Your task to perform on an android device: open sync settings in chrome Image 0: 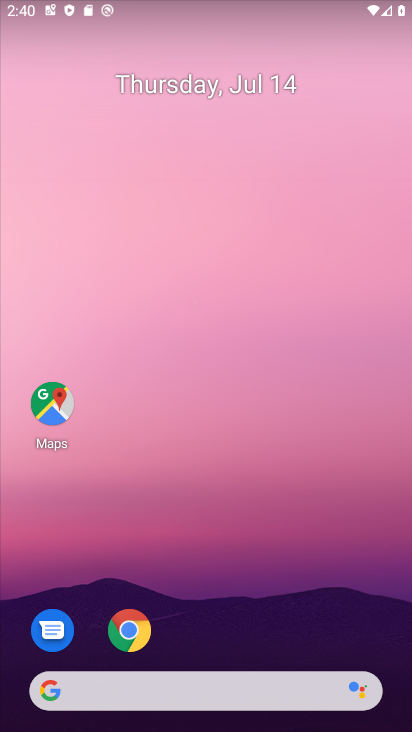
Step 0: press home button
Your task to perform on an android device: open sync settings in chrome Image 1: 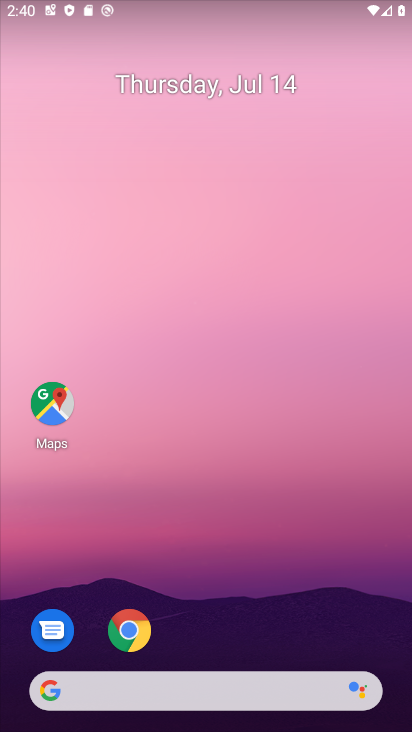
Step 1: click (128, 629)
Your task to perform on an android device: open sync settings in chrome Image 2: 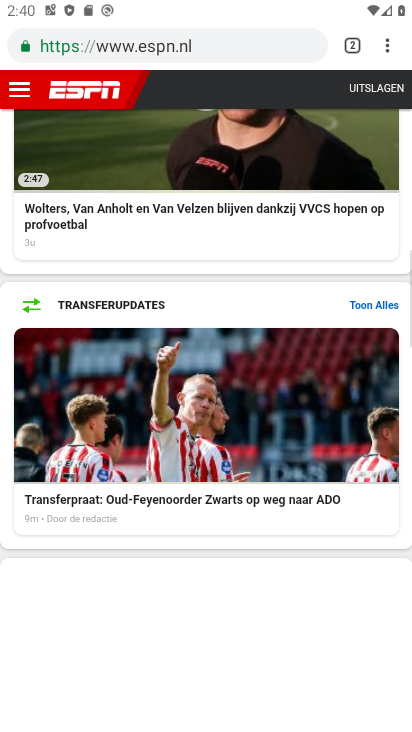
Step 2: click (382, 44)
Your task to perform on an android device: open sync settings in chrome Image 3: 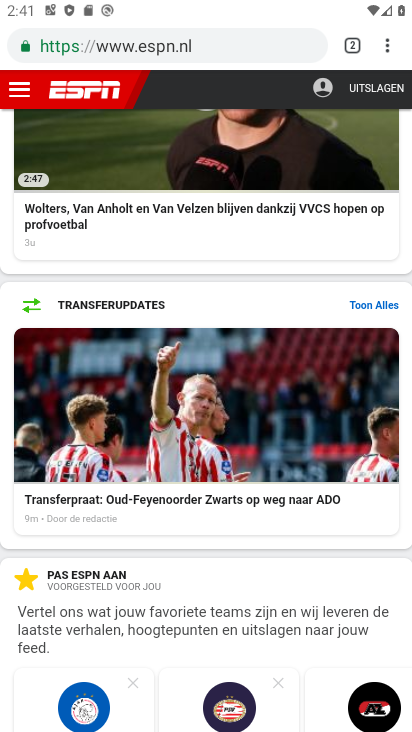
Step 3: click (389, 46)
Your task to perform on an android device: open sync settings in chrome Image 4: 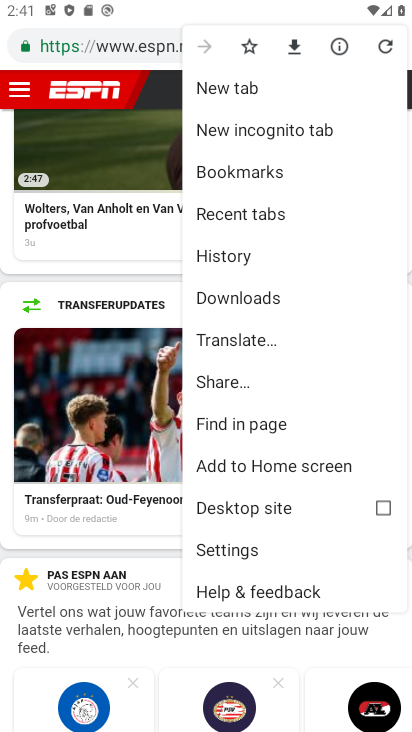
Step 4: click (257, 548)
Your task to perform on an android device: open sync settings in chrome Image 5: 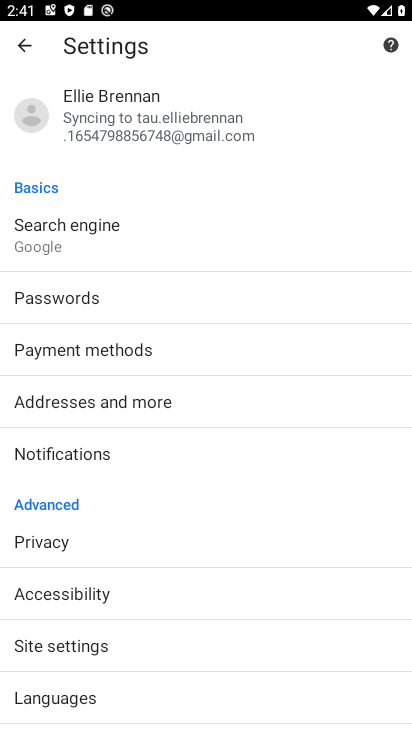
Step 5: click (194, 120)
Your task to perform on an android device: open sync settings in chrome Image 6: 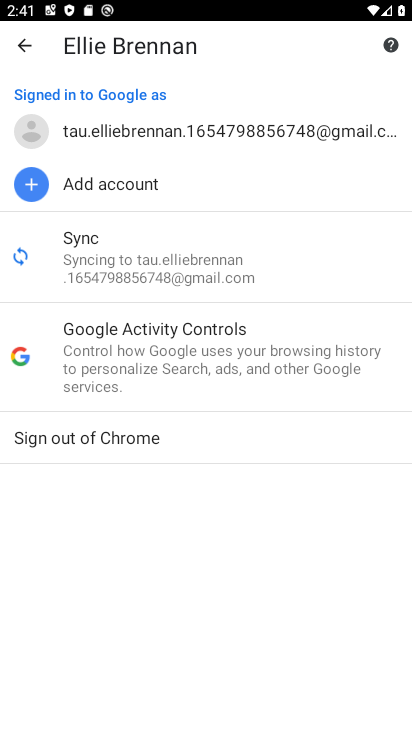
Step 6: click (149, 251)
Your task to perform on an android device: open sync settings in chrome Image 7: 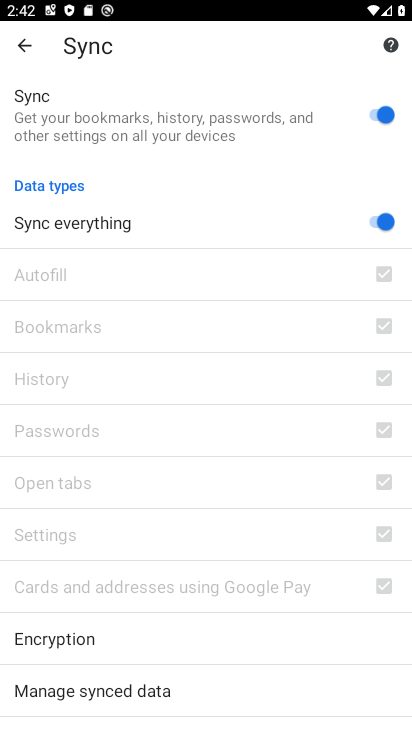
Step 7: task complete